Your task to perform on an android device: toggle notification dots Image 0: 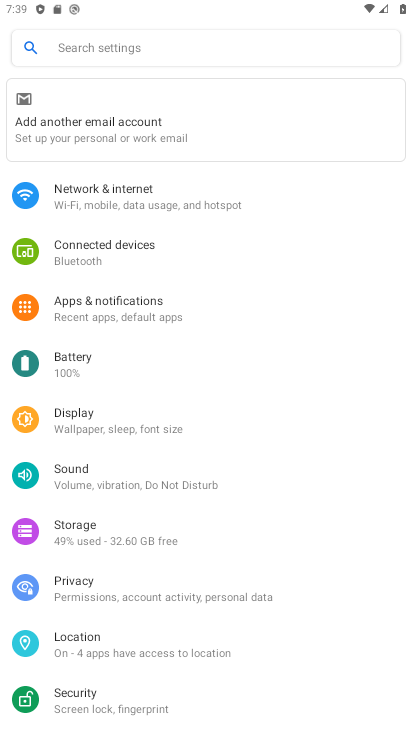
Step 0: press home button
Your task to perform on an android device: toggle notification dots Image 1: 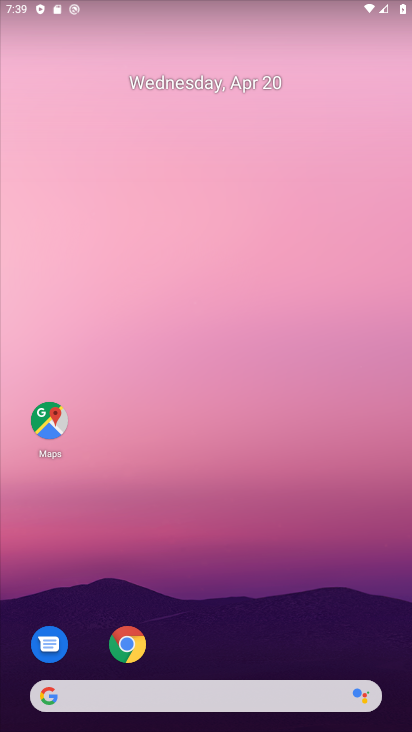
Step 1: drag from (322, 622) to (214, 92)
Your task to perform on an android device: toggle notification dots Image 2: 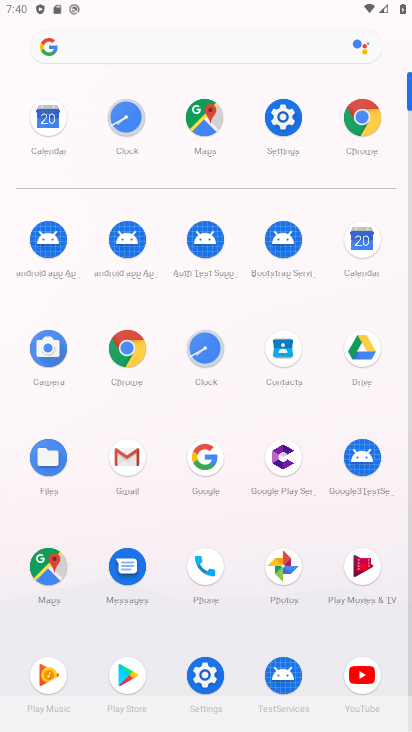
Step 2: click (194, 682)
Your task to perform on an android device: toggle notification dots Image 3: 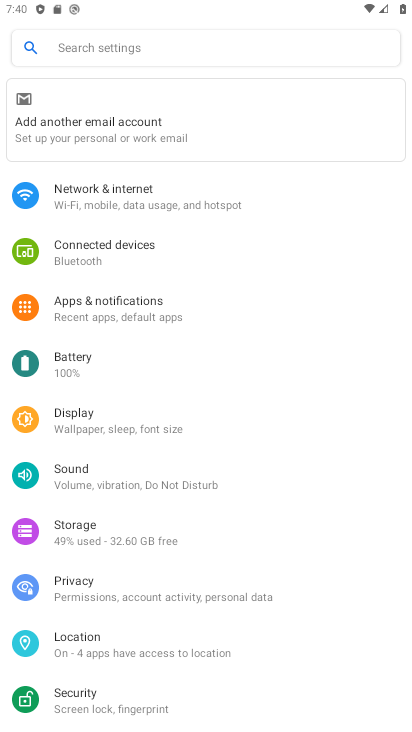
Step 3: click (135, 300)
Your task to perform on an android device: toggle notification dots Image 4: 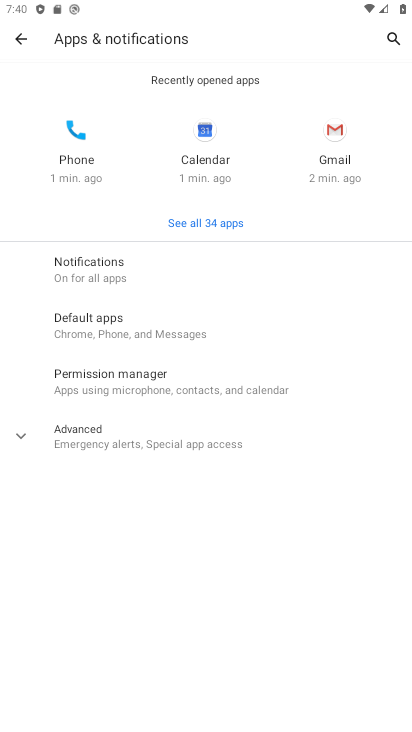
Step 4: click (149, 275)
Your task to perform on an android device: toggle notification dots Image 5: 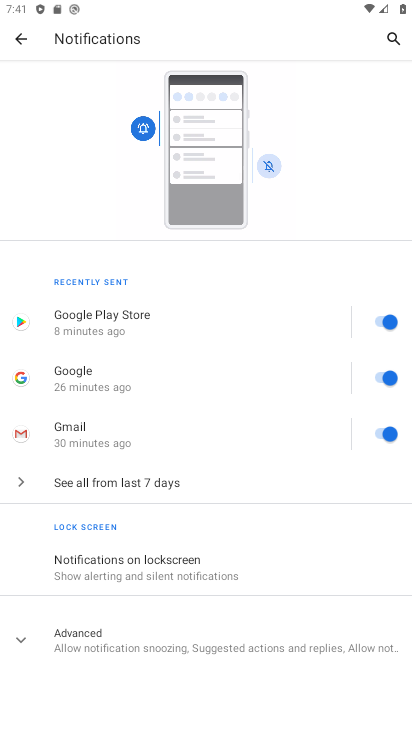
Step 5: click (25, 642)
Your task to perform on an android device: toggle notification dots Image 6: 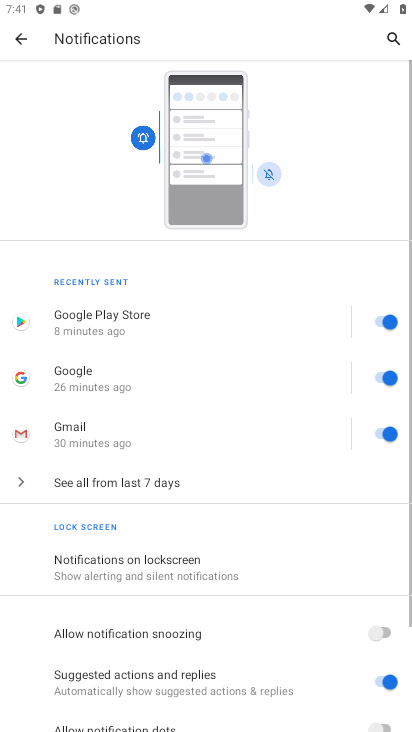
Step 6: drag from (136, 612) to (226, 170)
Your task to perform on an android device: toggle notification dots Image 7: 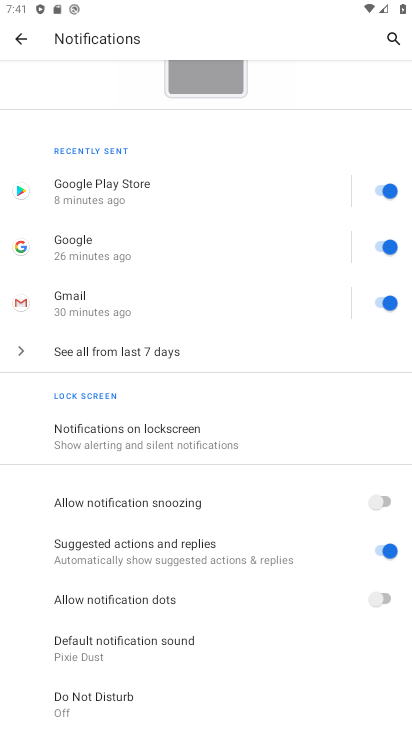
Step 7: click (309, 601)
Your task to perform on an android device: toggle notification dots Image 8: 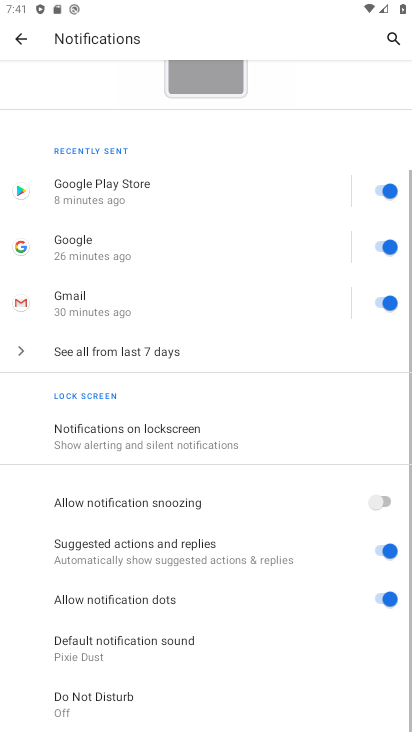
Step 8: task complete